Your task to perform on an android device: When is my next meeting? Image 0: 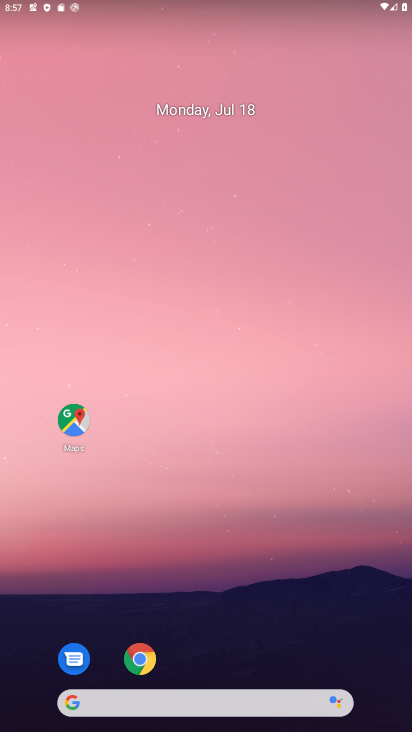
Step 0: drag from (362, 661) to (402, 22)
Your task to perform on an android device: When is my next meeting? Image 1: 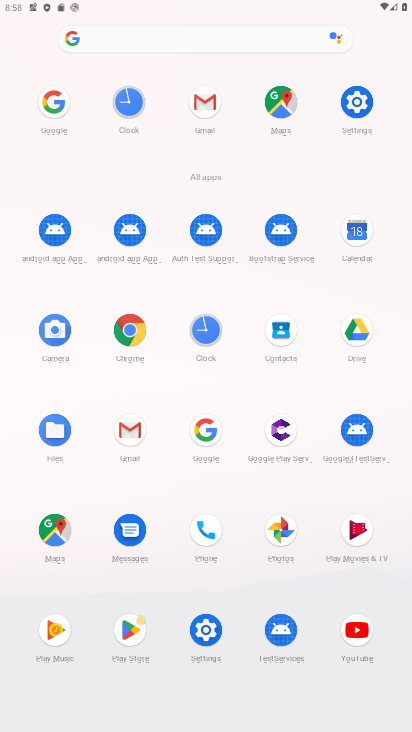
Step 1: click (360, 232)
Your task to perform on an android device: When is my next meeting? Image 2: 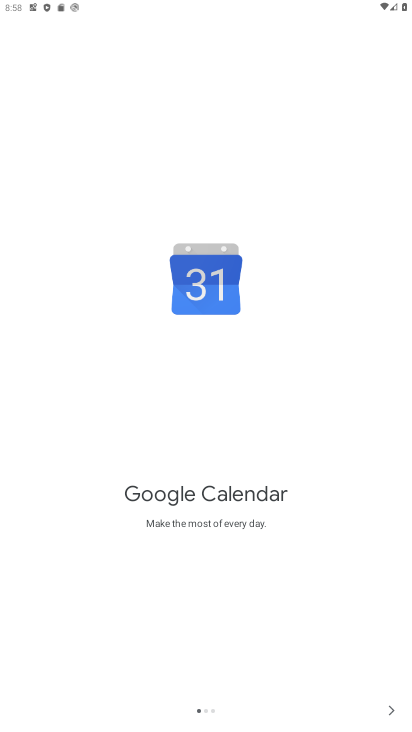
Step 2: click (385, 715)
Your task to perform on an android device: When is my next meeting? Image 3: 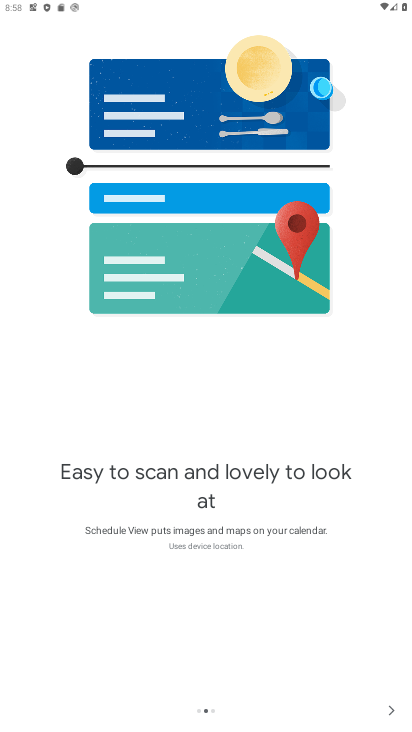
Step 3: click (385, 715)
Your task to perform on an android device: When is my next meeting? Image 4: 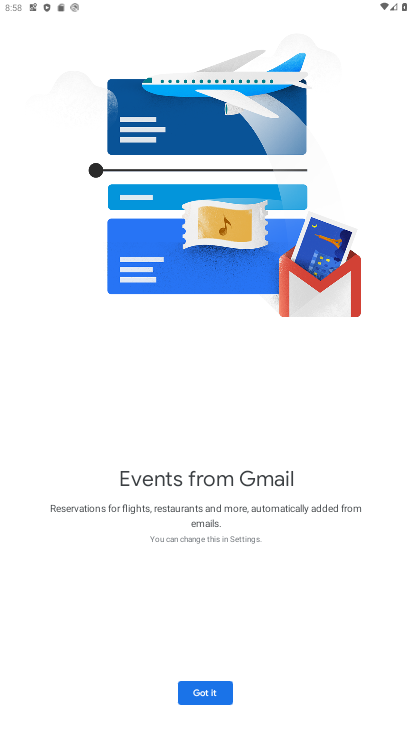
Step 4: click (193, 693)
Your task to perform on an android device: When is my next meeting? Image 5: 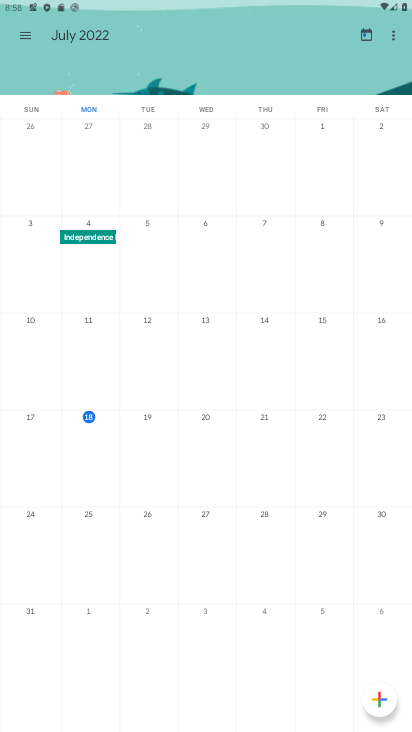
Step 5: click (90, 418)
Your task to perform on an android device: When is my next meeting? Image 6: 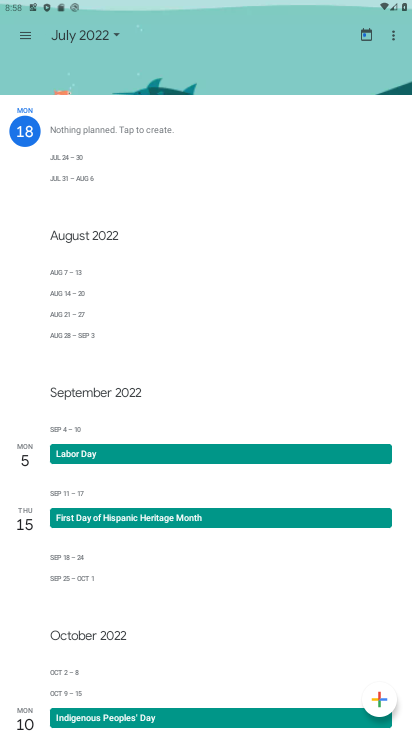
Step 6: task complete